Your task to perform on an android device: turn on airplane mode Image 0: 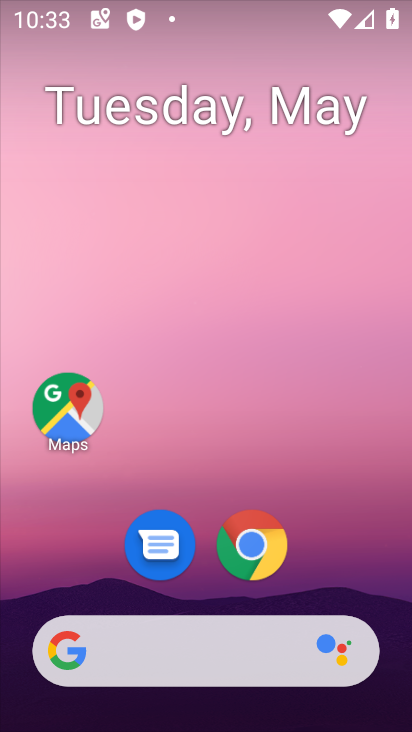
Step 0: drag from (254, 637) to (251, 128)
Your task to perform on an android device: turn on airplane mode Image 1: 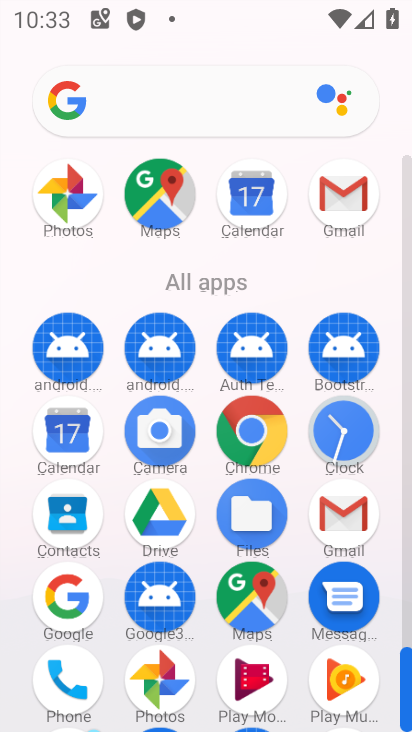
Step 1: drag from (253, 375) to (239, 76)
Your task to perform on an android device: turn on airplane mode Image 2: 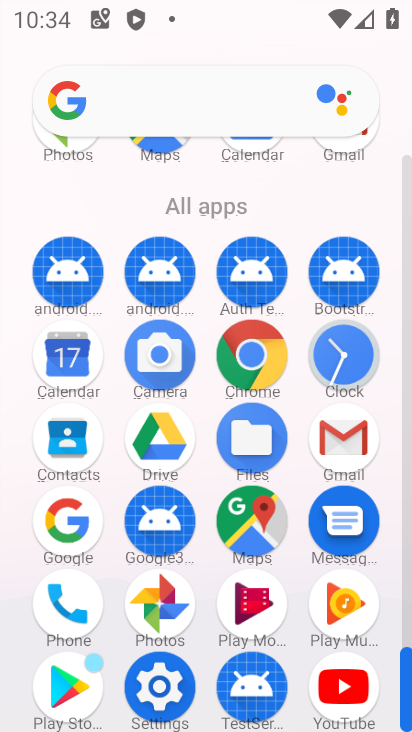
Step 2: click (167, 672)
Your task to perform on an android device: turn on airplane mode Image 3: 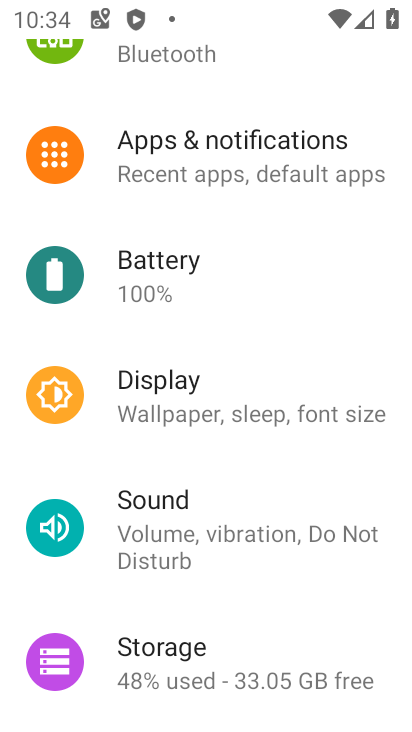
Step 3: drag from (193, 322) to (199, 540)
Your task to perform on an android device: turn on airplane mode Image 4: 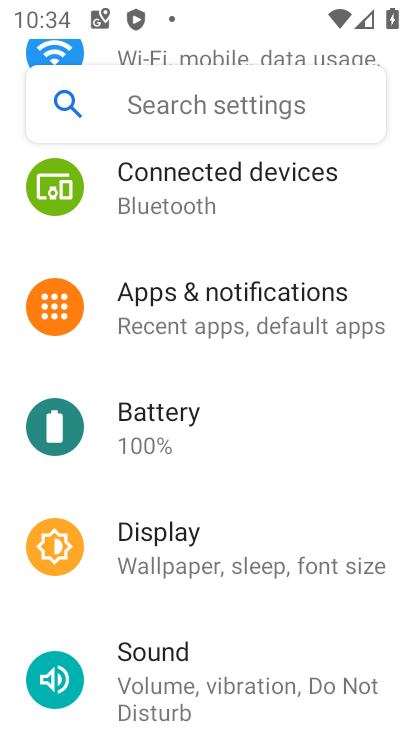
Step 4: drag from (257, 335) to (238, 689)
Your task to perform on an android device: turn on airplane mode Image 5: 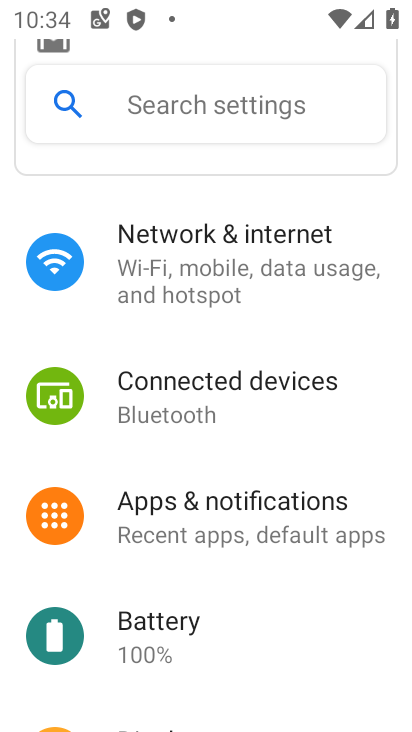
Step 5: click (225, 302)
Your task to perform on an android device: turn on airplane mode Image 6: 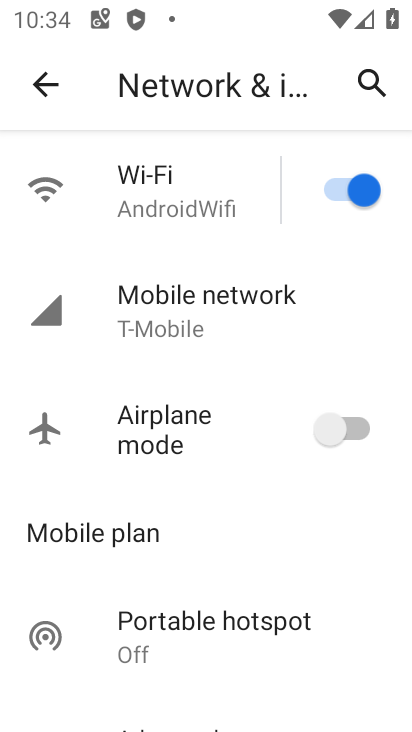
Step 6: click (386, 421)
Your task to perform on an android device: turn on airplane mode Image 7: 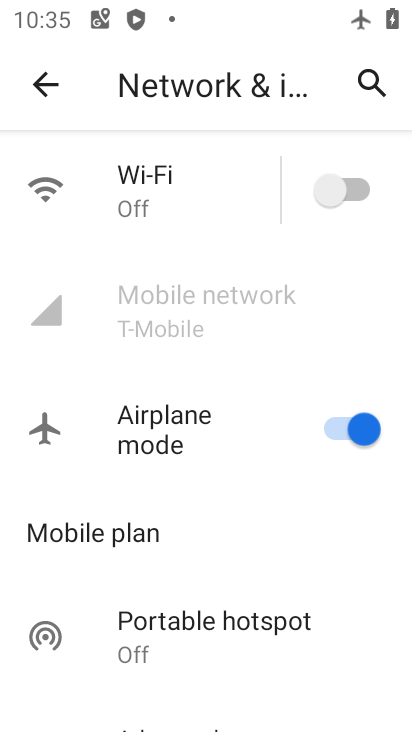
Step 7: task complete